Your task to perform on an android device: Open Chrome and go to the settings page Image 0: 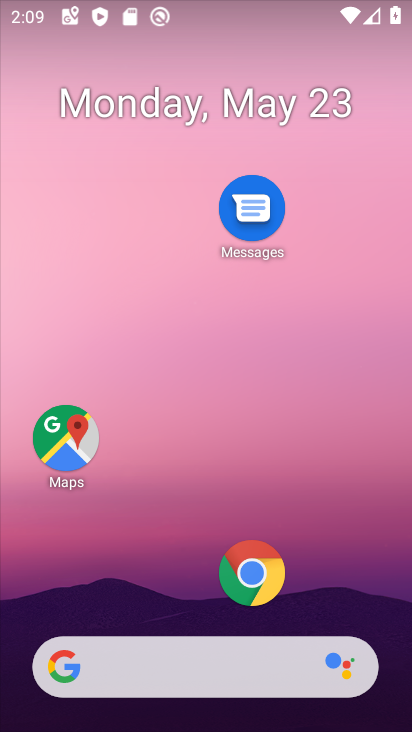
Step 0: drag from (185, 693) to (312, 23)
Your task to perform on an android device: Open Chrome and go to the settings page Image 1: 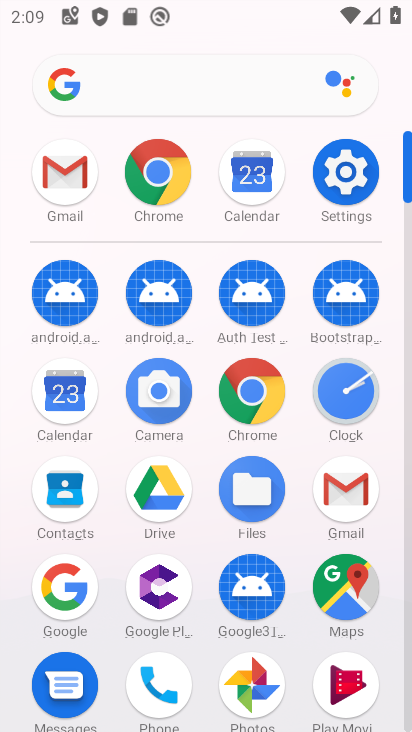
Step 1: click (244, 379)
Your task to perform on an android device: Open Chrome and go to the settings page Image 2: 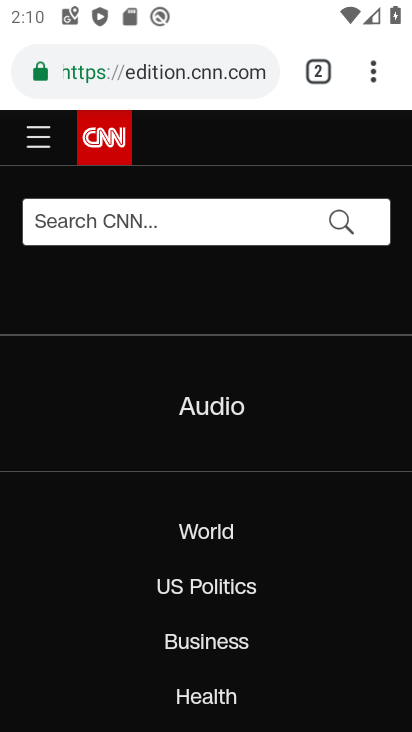
Step 2: task complete